Your task to perform on an android device: turn off smart reply in the gmail app Image 0: 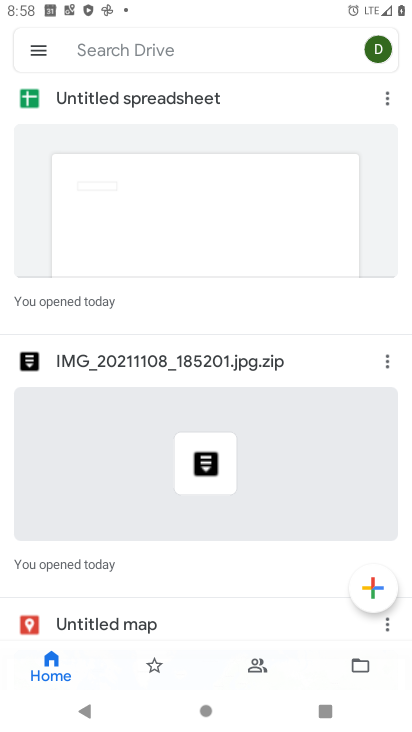
Step 0: press home button
Your task to perform on an android device: turn off smart reply in the gmail app Image 1: 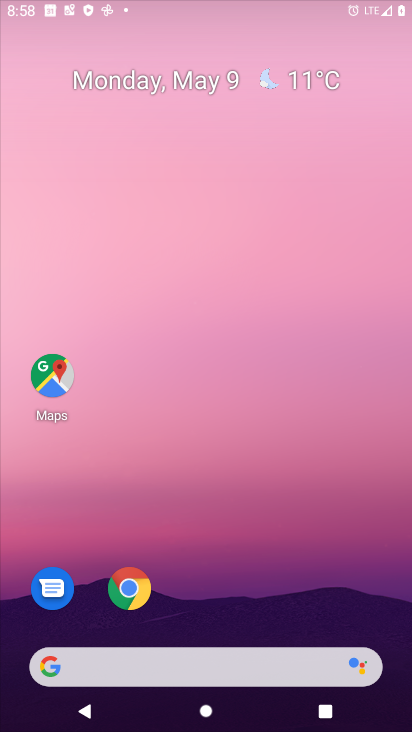
Step 1: drag from (336, 598) to (292, 52)
Your task to perform on an android device: turn off smart reply in the gmail app Image 2: 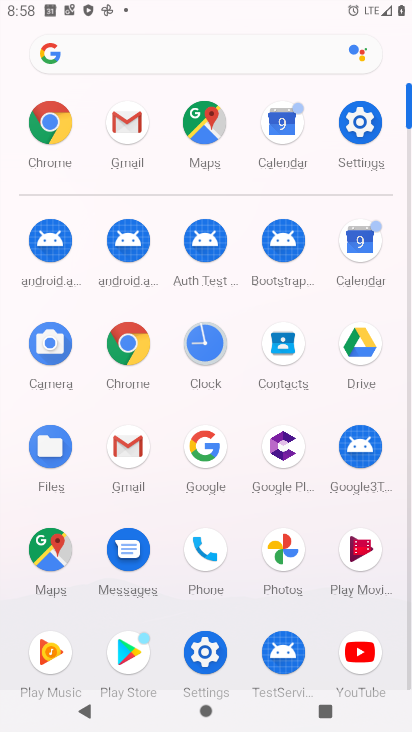
Step 2: click (123, 454)
Your task to perform on an android device: turn off smart reply in the gmail app Image 3: 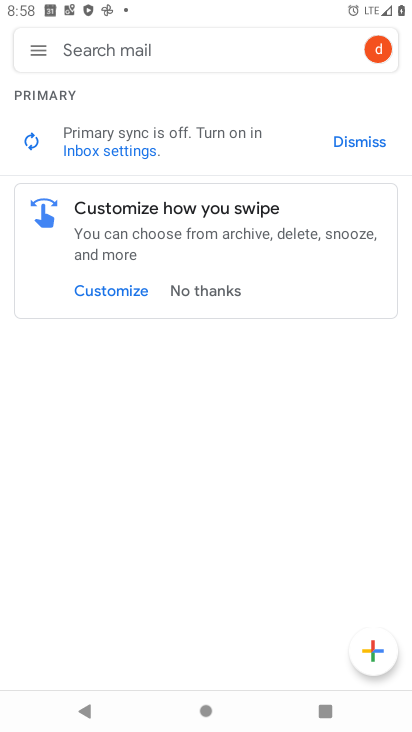
Step 3: click (28, 53)
Your task to perform on an android device: turn off smart reply in the gmail app Image 4: 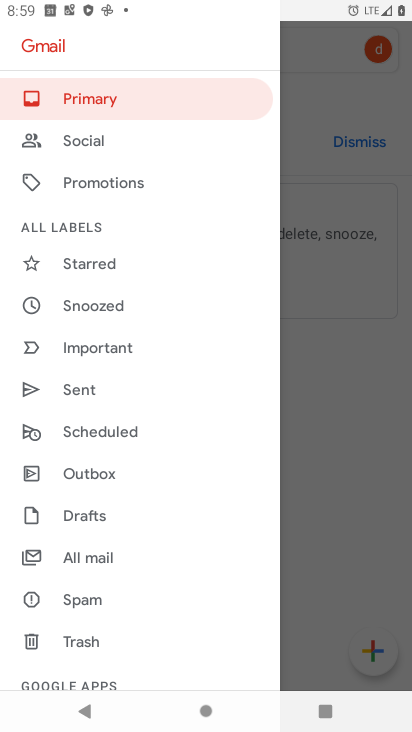
Step 4: drag from (118, 622) to (126, 144)
Your task to perform on an android device: turn off smart reply in the gmail app Image 5: 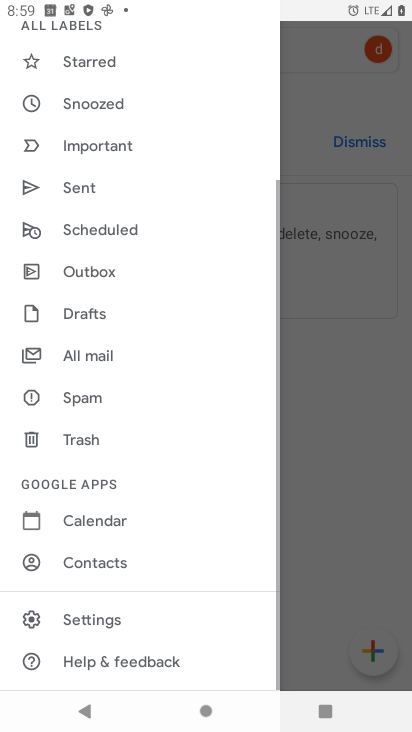
Step 5: click (114, 633)
Your task to perform on an android device: turn off smart reply in the gmail app Image 6: 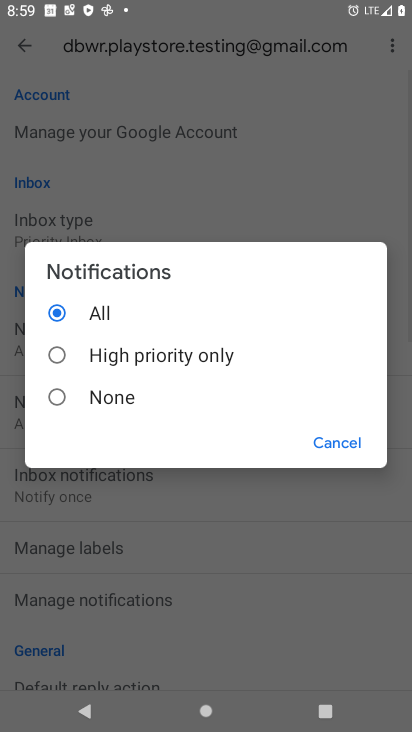
Step 6: click (341, 444)
Your task to perform on an android device: turn off smart reply in the gmail app Image 7: 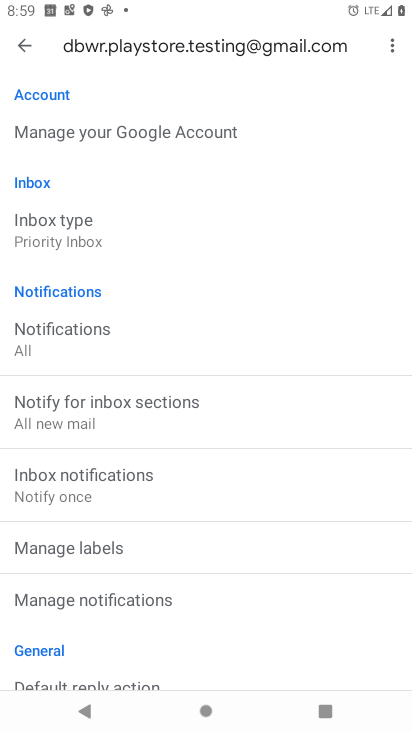
Step 7: task complete